Your task to perform on an android device: see sites visited before in the chrome app Image 0: 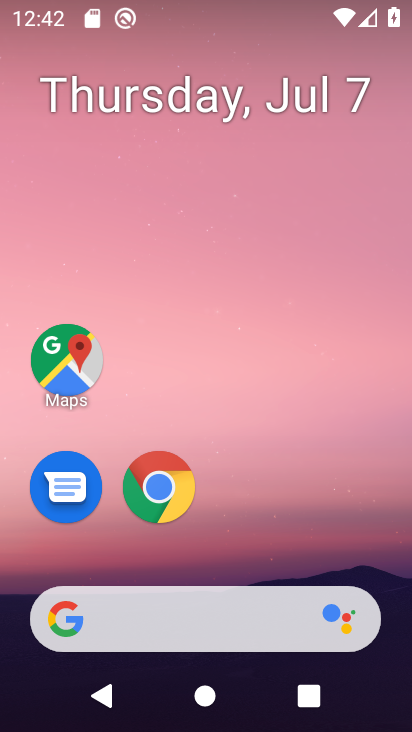
Step 0: drag from (324, 547) to (330, 154)
Your task to perform on an android device: see sites visited before in the chrome app Image 1: 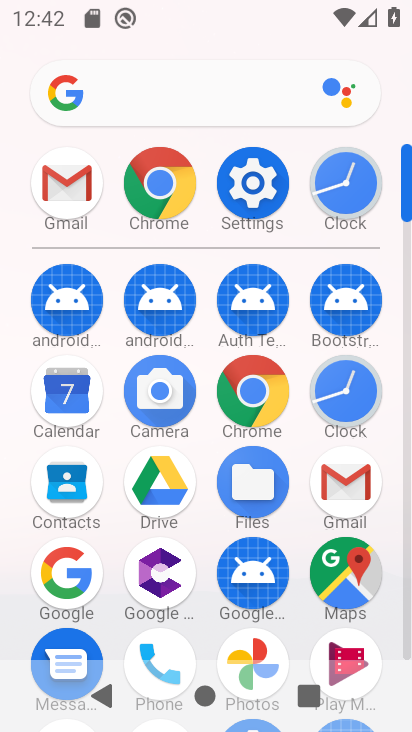
Step 1: click (263, 397)
Your task to perform on an android device: see sites visited before in the chrome app Image 2: 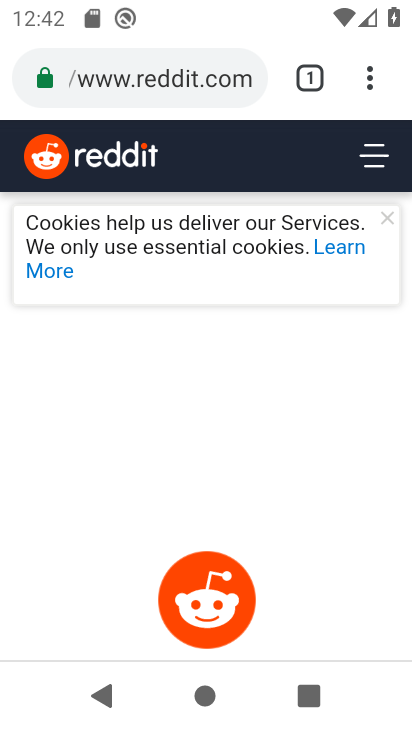
Step 2: click (369, 86)
Your task to perform on an android device: see sites visited before in the chrome app Image 3: 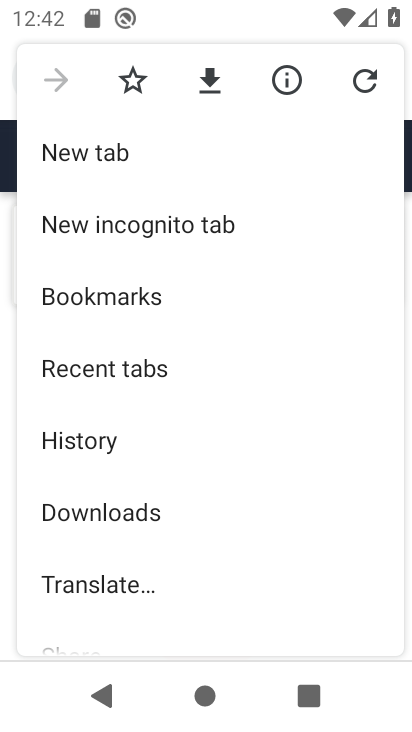
Step 3: drag from (322, 505) to (337, 354)
Your task to perform on an android device: see sites visited before in the chrome app Image 4: 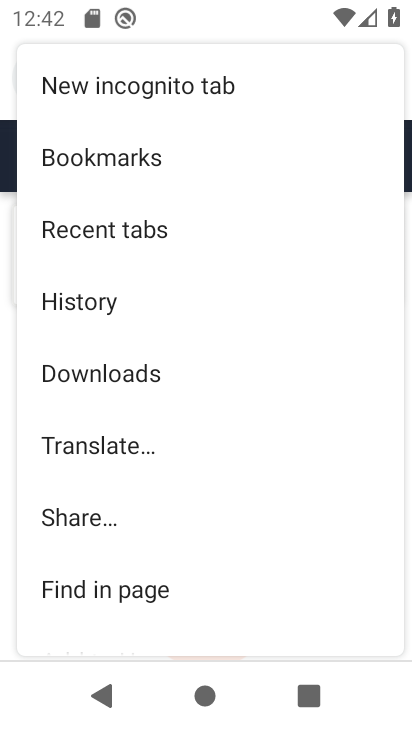
Step 4: drag from (298, 447) to (291, 322)
Your task to perform on an android device: see sites visited before in the chrome app Image 5: 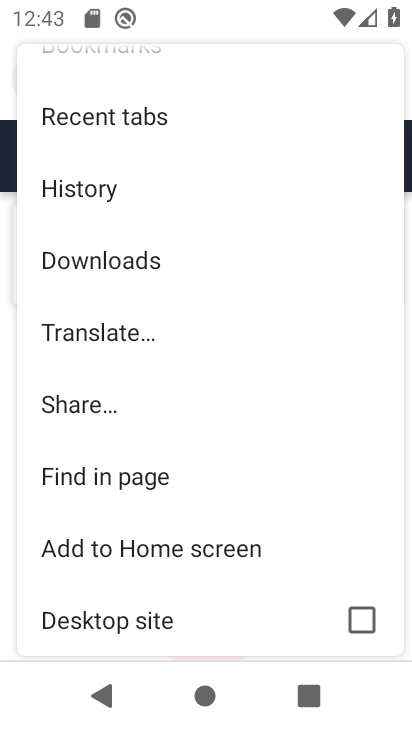
Step 5: click (129, 309)
Your task to perform on an android device: see sites visited before in the chrome app Image 6: 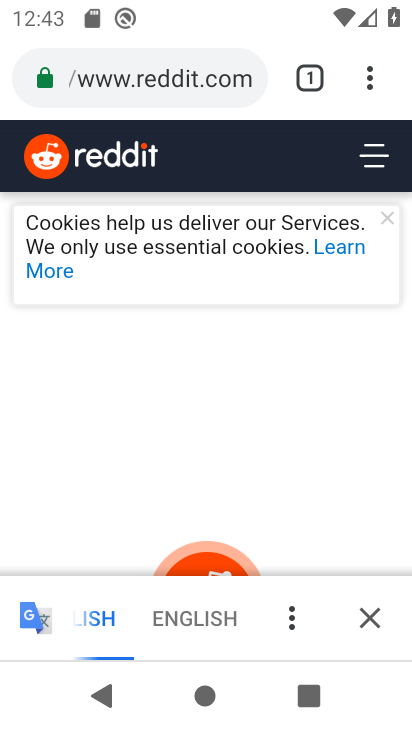
Step 6: click (105, 190)
Your task to perform on an android device: see sites visited before in the chrome app Image 7: 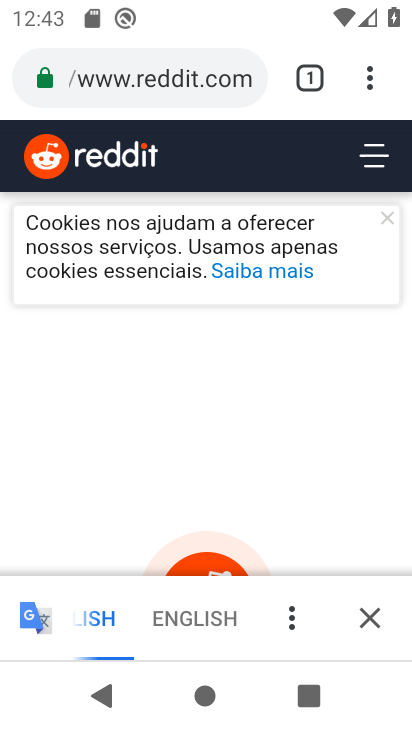
Step 7: click (366, 82)
Your task to perform on an android device: see sites visited before in the chrome app Image 8: 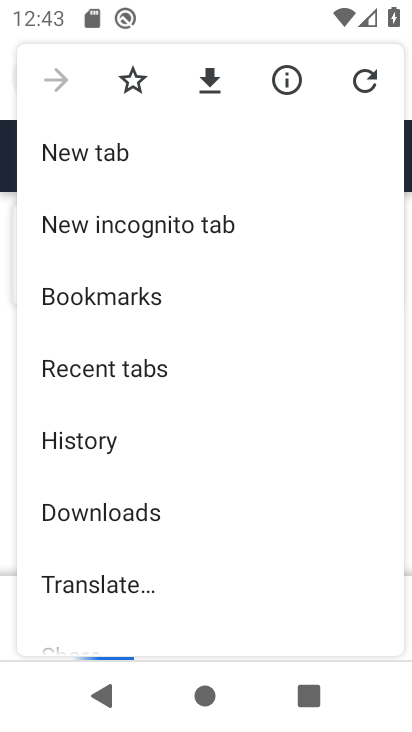
Step 8: click (107, 434)
Your task to perform on an android device: see sites visited before in the chrome app Image 9: 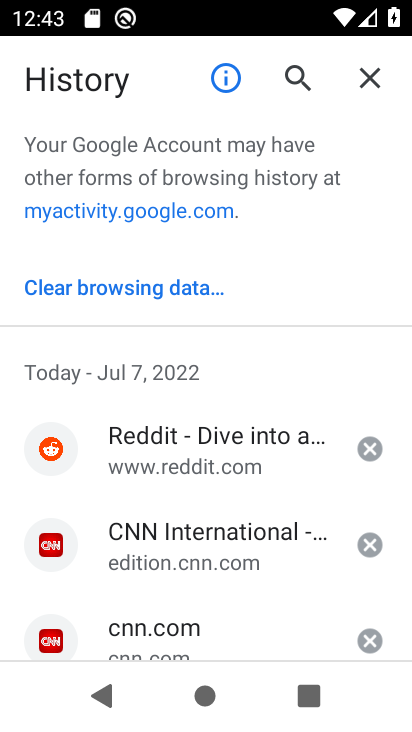
Step 9: task complete